Your task to perform on an android device: Open Amazon Image 0: 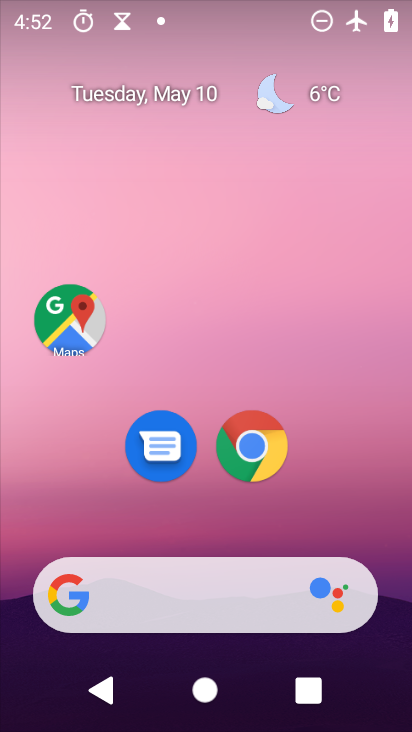
Step 0: drag from (326, 487) to (299, 55)
Your task to perform on an android device: Open Amazon Image 1: 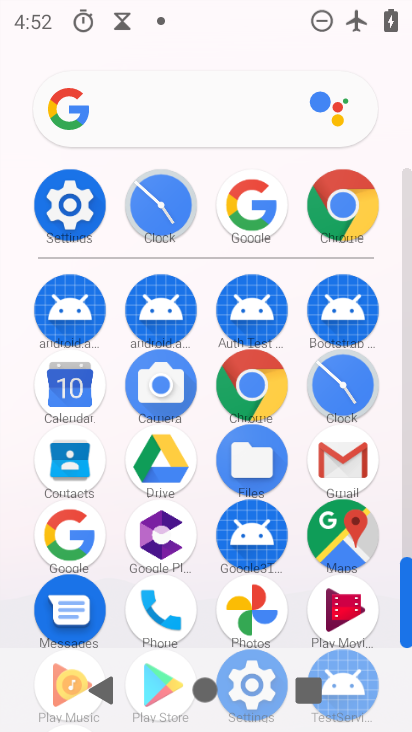
Step 1: click (74, 203)
Your task to perform on an android device: Open Amazon Image 2: 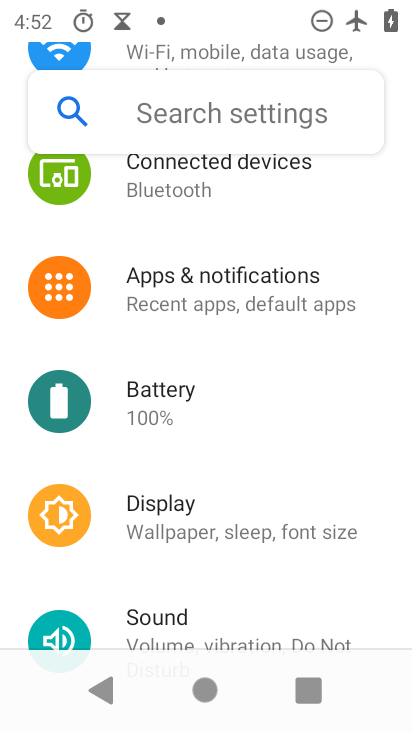
Step 2: click (215, 55)
Your task to perform on an android device: Open Amazon Image 3: 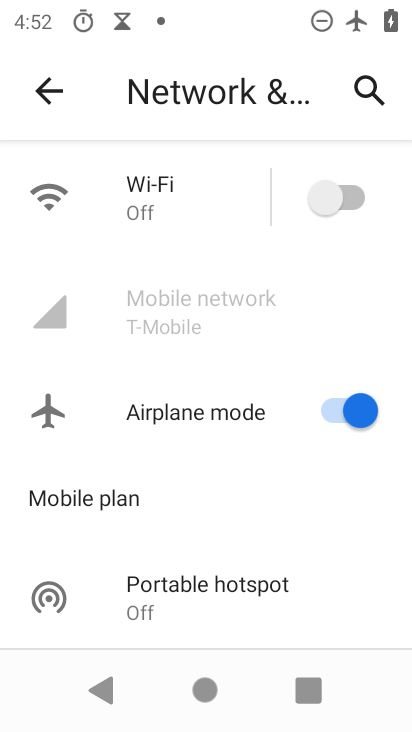
Step 3: click (338, 406)
Your task to perform on an android device: Open Amazon Image 4: 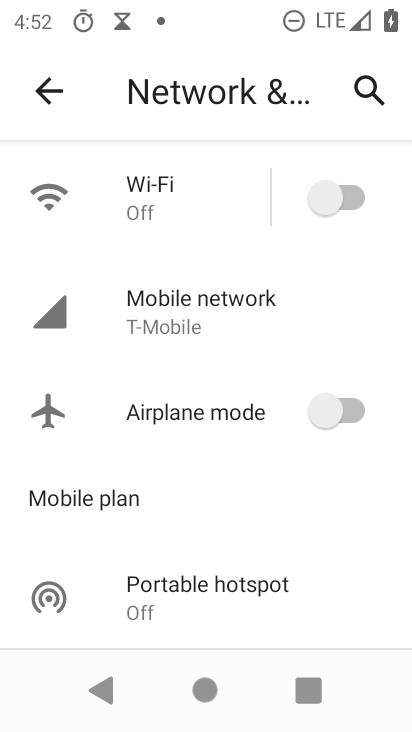
Step 4: press home button
Your task to perform on an android device: Open Amazon Image 5: 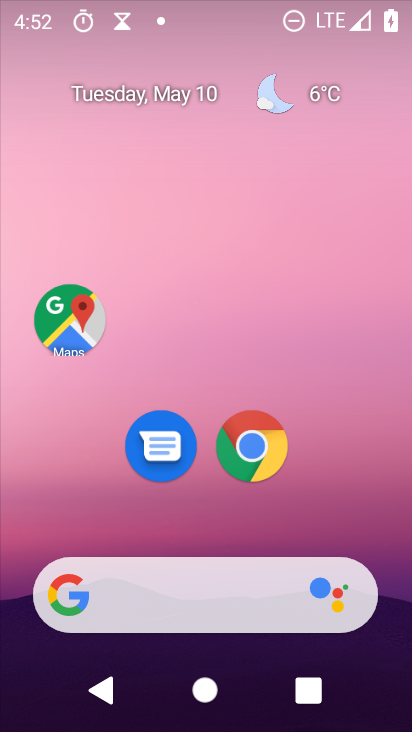
Step 5: click (255, 479)
Your task to perform on an android device: Open Amazon Image 6: 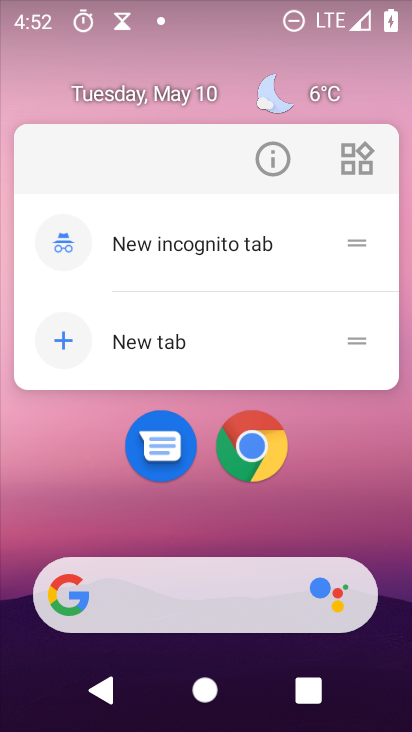
Step 6: click (255, 447)
Your task to perform on an android device: Open Amazon Image 7: 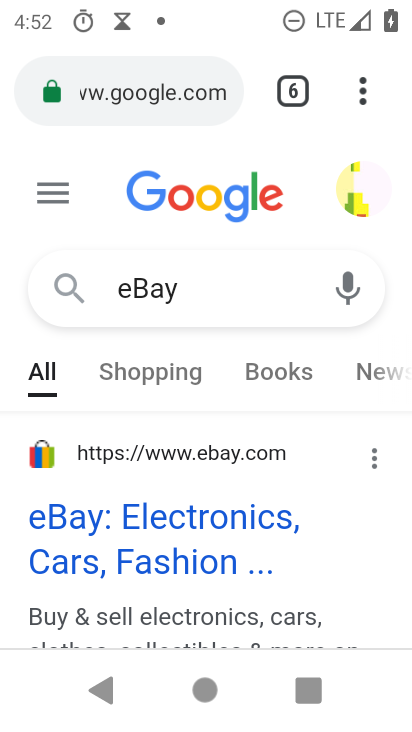
Step 7: click (294, 86)
Your task to perform on an android device: Open Amazon Image 8: 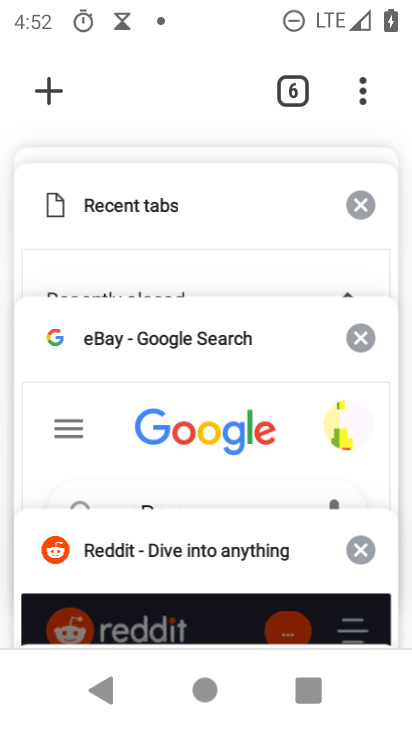
Step 8: drag from (182, 225) to (185, 563)
Your task to perform on an android device: Open Amazon Image 9: 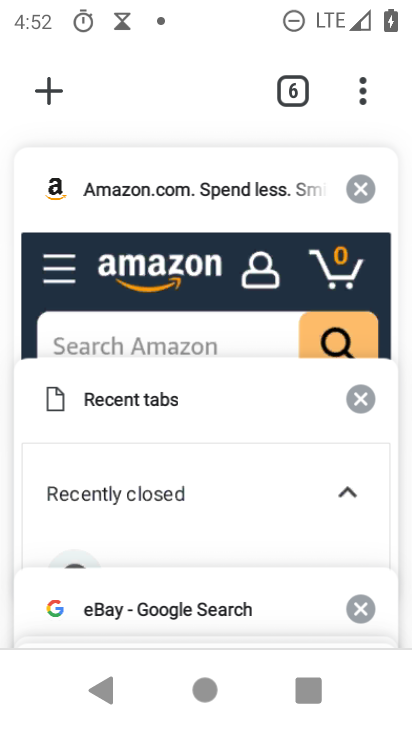
Step 9: click (155, 233)
Your task to perform on an android device: Open Amazon Image 10: 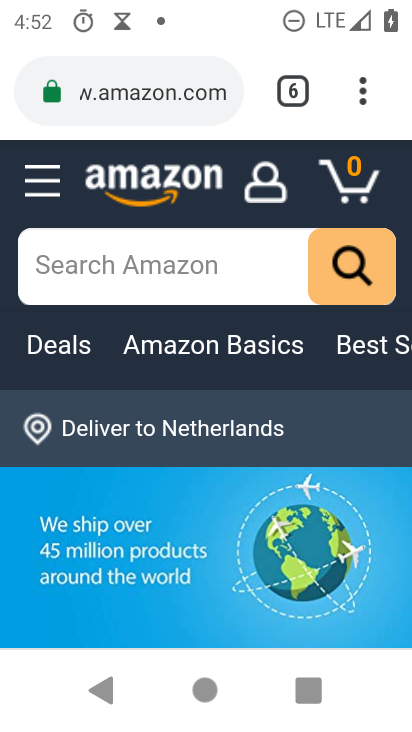
Step 10: task complete